Your task to perform on an android device: choose inbox layout in the gmail app Image 0: 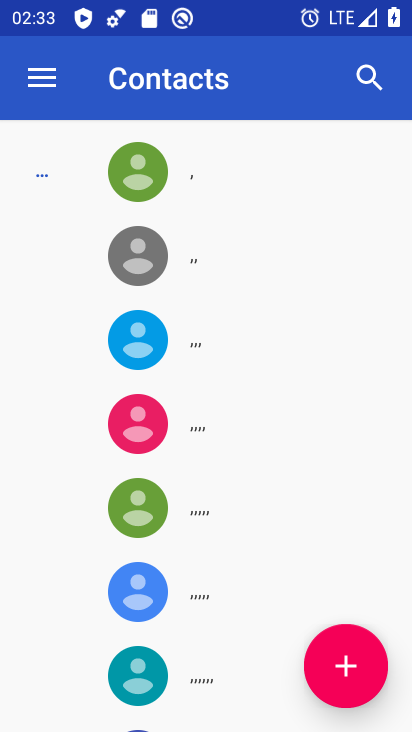
Step 0: press home button
Your task to perform on an android device: choose inbox layout in the gmail app Image 1: 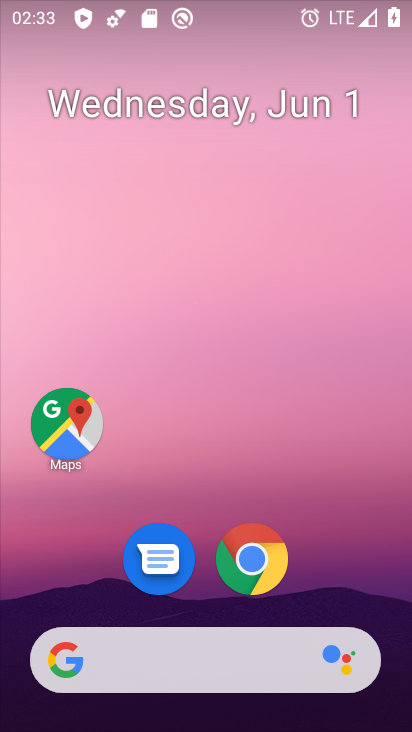
Step 1: drag from (316, 611) to (335, 198)
Your task to perform on an android device: choose inbox layout in the gmail app Image 2: 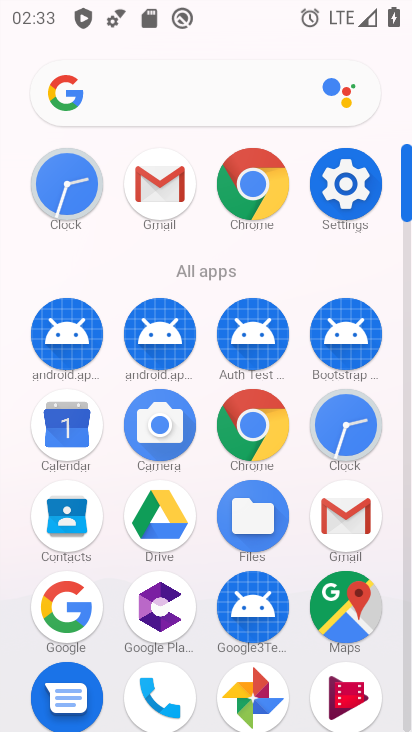
Step 2: click (156, 193)
Your task to perform on an android device: choose inbox layout in the gmail app Image 3: 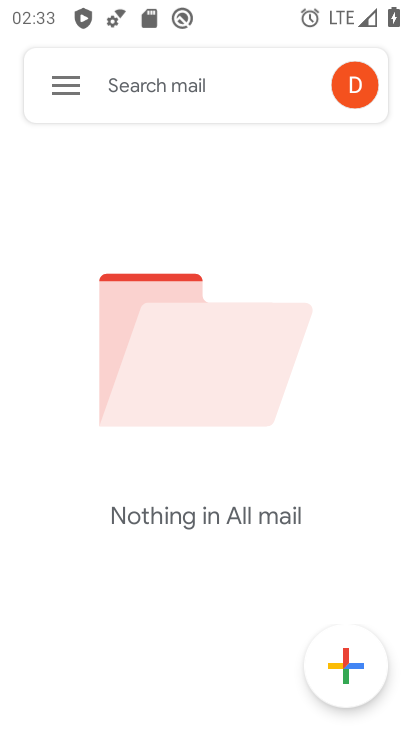
Step 3: click (70, 80)
Your task to perform on an android device: choose inbox layout in the gmail app Image 4: 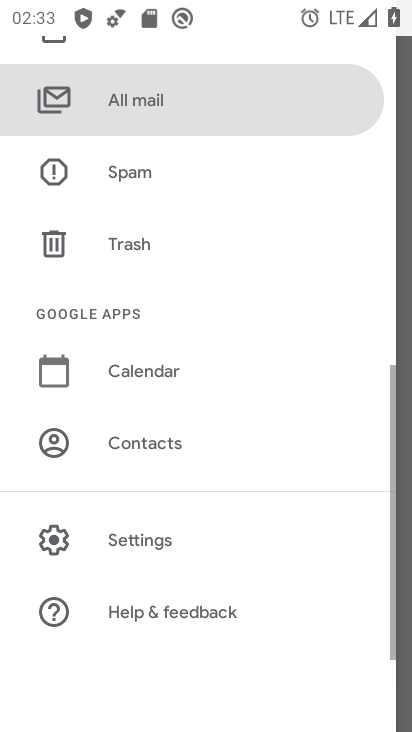
Step 4: click (137, 543)
Your task to perform on an android device: choose inbox layout in the gmail app Image 5: 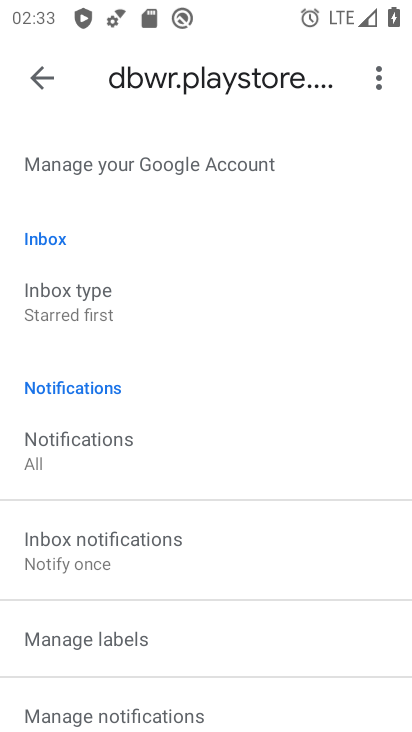
Step 5: click (71, 299)
Your task to perform on an android device: choose inbox layout in the gmail app Image 6: 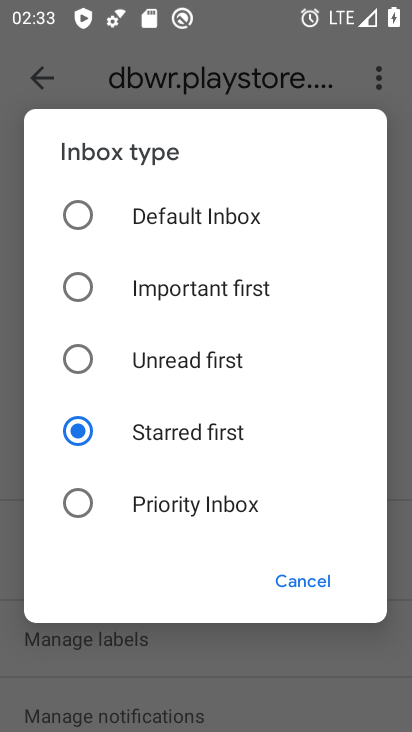
Step 6: click (86, 218)
Your task to perform on an android device: choose inbox layout in the gmail app Image 7: 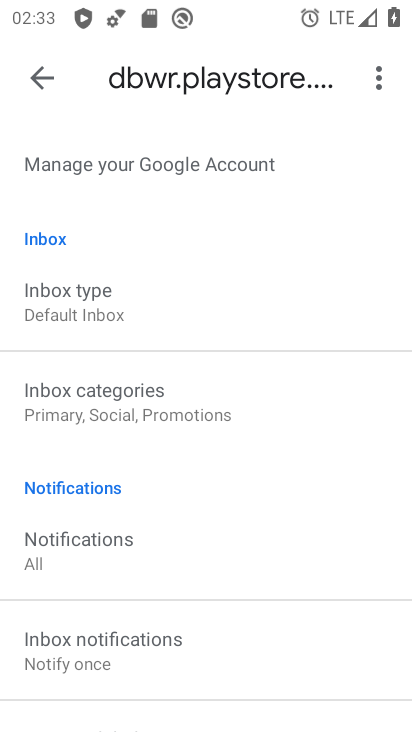
Step 7: task complete